Your task to perform on an android device: turn off priority inbox in the gmail app Image 0: 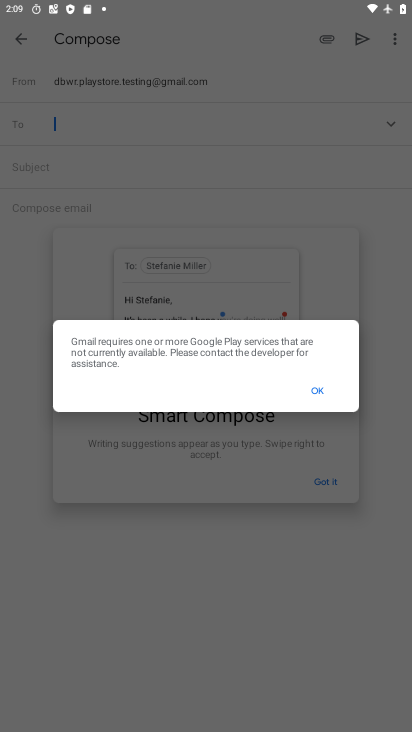
Step 0: press home button
Your task to perform on an android device: turn off priority inbox in the gmail app Image 1: 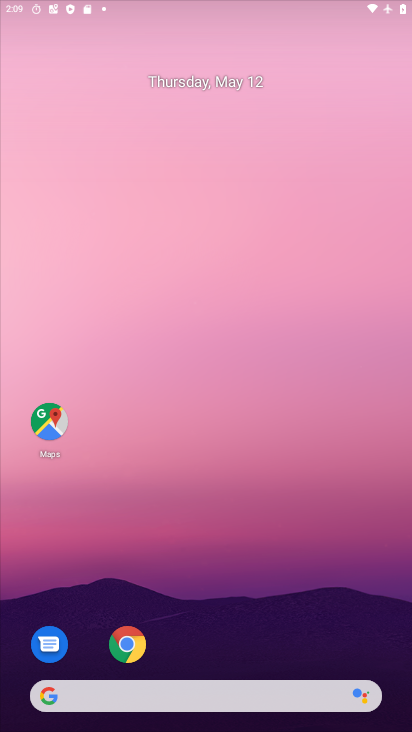
Step 1: drag from (302, 460) to (277, 133)
Your task to perform on an android device: turn off priority inbox in the gmail app Image 2: 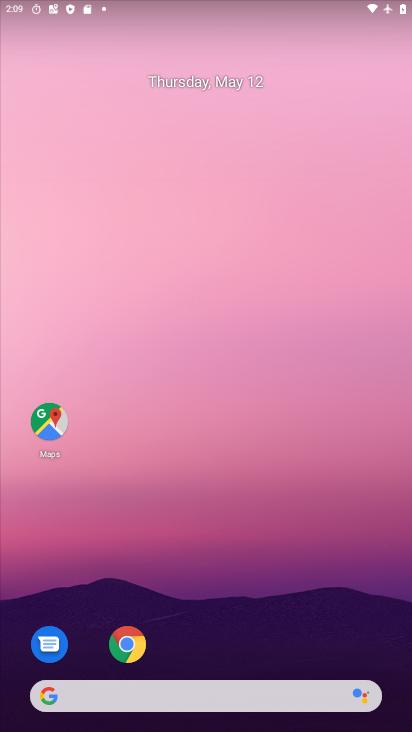
Step 2: drag from (264, 485) to (182, 0)
Your task to perform on an android device: turn off priority inbox in the gmail app Image 3: 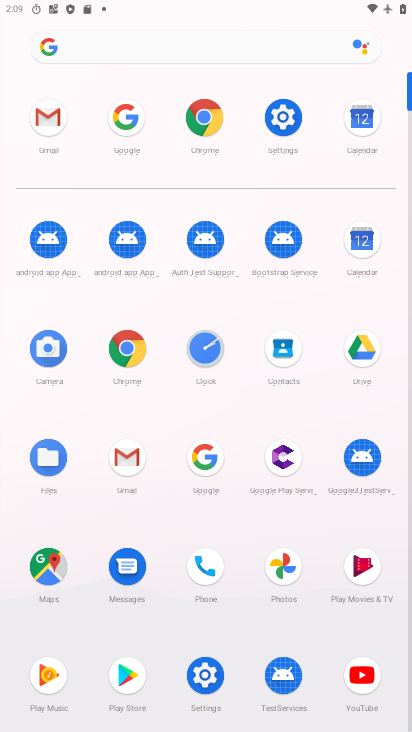
Step 3: click (48, 114)
Your task to perform on an android device: turn off priority inbox in the gmail app Image 4: 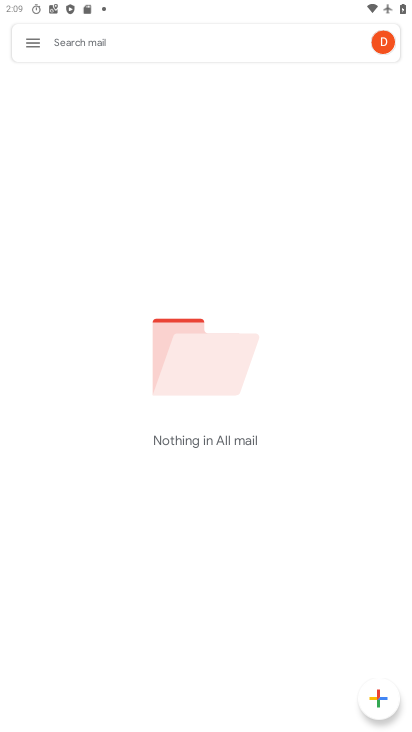
Step 4: click (40, 51)
Your task to perform on an android device: turn off priority inbox in the gmail app Image 5: 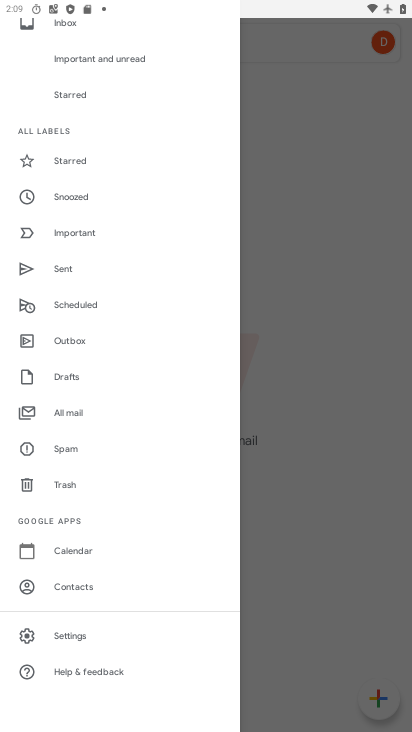
Step 5: click (97, 630)
Your task to perform on an android device: turn off priority inbox in the gmail app Image 6: 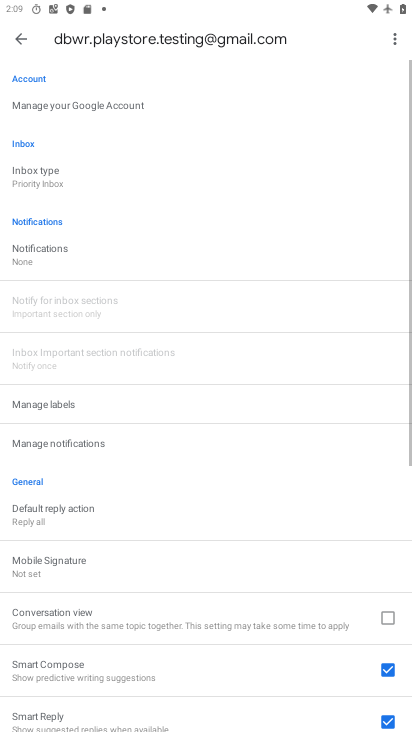
Step 6: click (85, 180)
Your task to perform on an android device: turn off priority inbox in the gmail app Image 7: 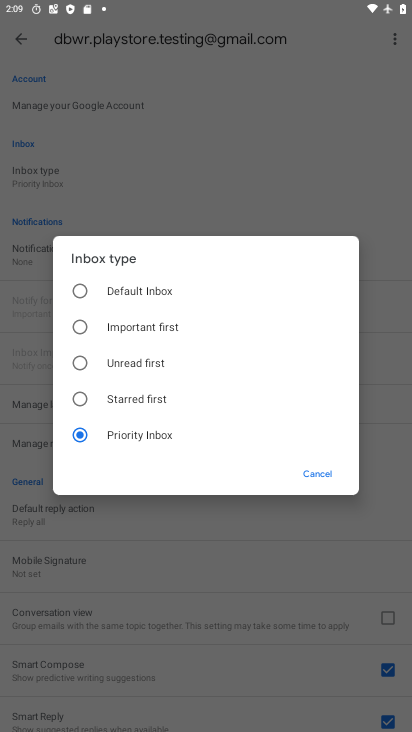
Step 7: click (143, 282)
Your task to perform on an android device: turn off priority inbox in the gmail app Image 8: 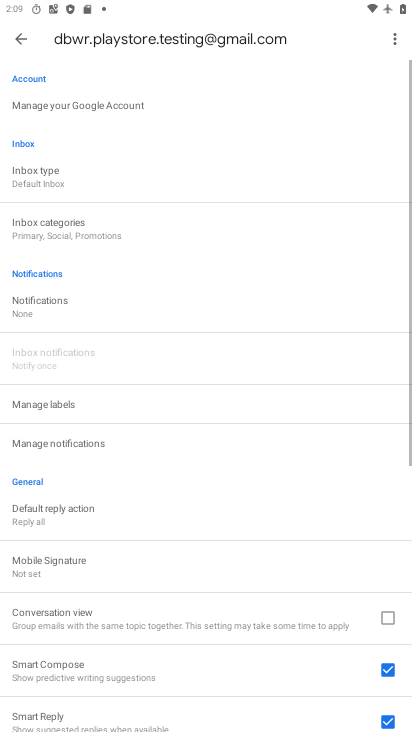
Step 8: task complete